Your task to perform on an android device: turn off location Image 0: 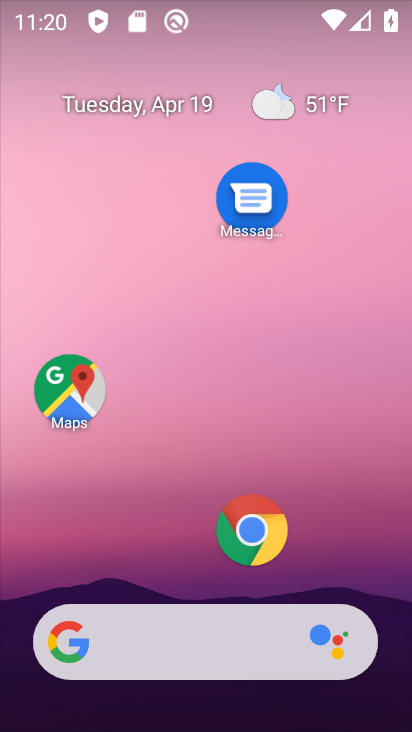
Step 0: drag from (143, 474) to (224, 7)
Your task to perform on an android device: turn off location Image 1: 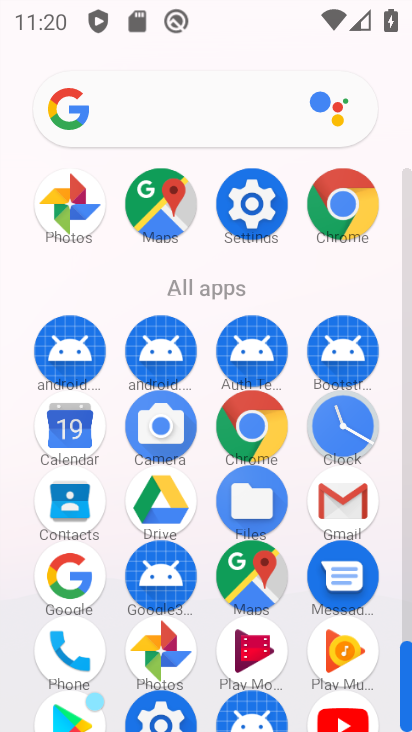
Step 1: drag from (149, 623) to (269, 306)
Your task to perform on an android device: turn off location Image 2: 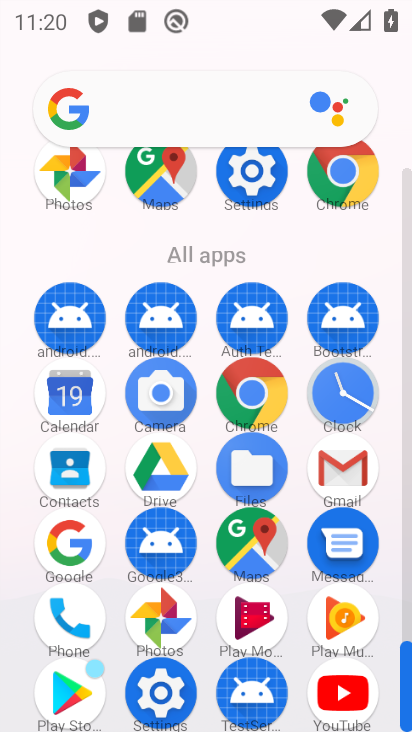
Step 2: click (160, 695)
Your task to perform on an android device: turn off location Image 3: 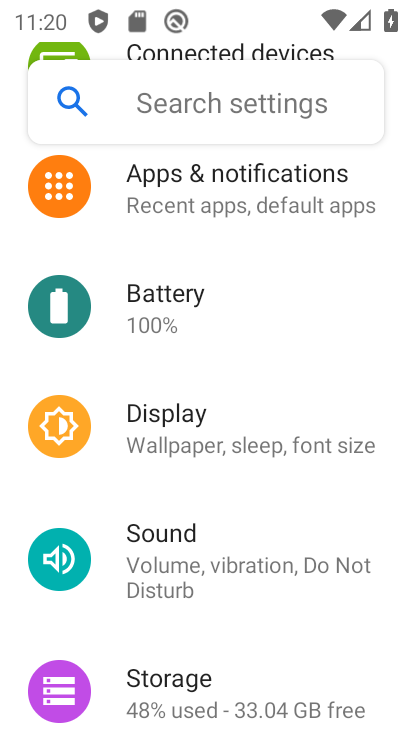
Step 3: drag from (125, 559) to (259, 205)
Your task to perform on an android device: turn off location Image 4: 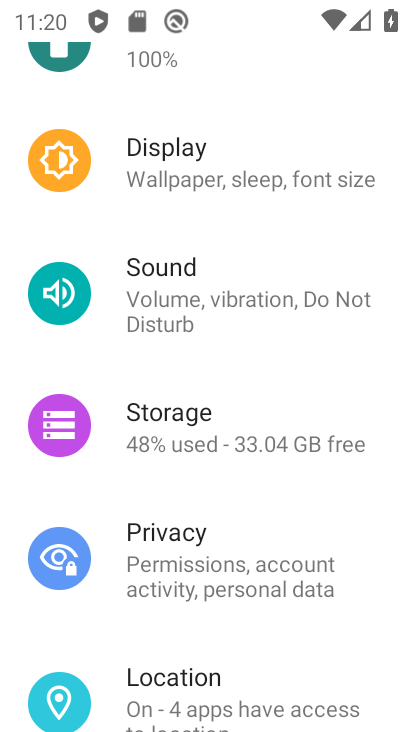
Step 4: drag from (213, 629) to (282, 342)
Your task to perform on an android device: turn off location Image 5: 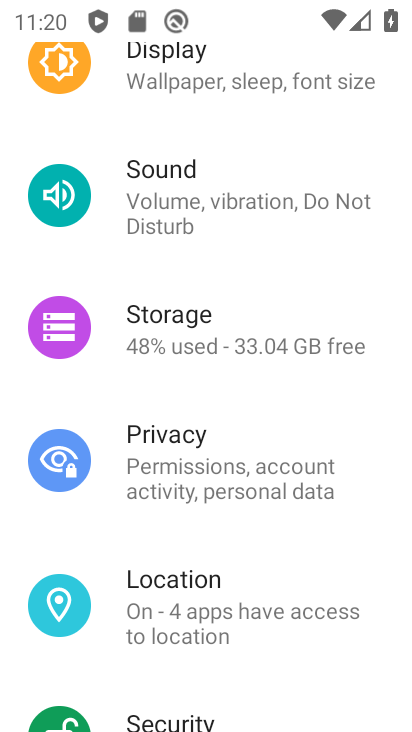
Step 5: click (178, 593)
Your task to perform on an android device: turn off location Image 6: 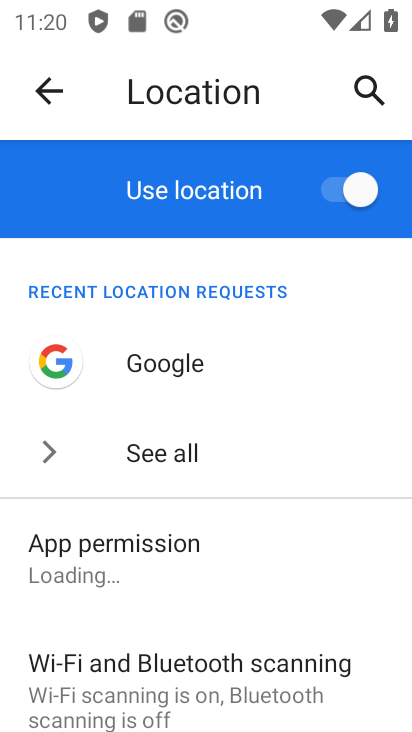
Step 6: click (332, 187)
Your task to perform on an android device: turn off location Image 7: 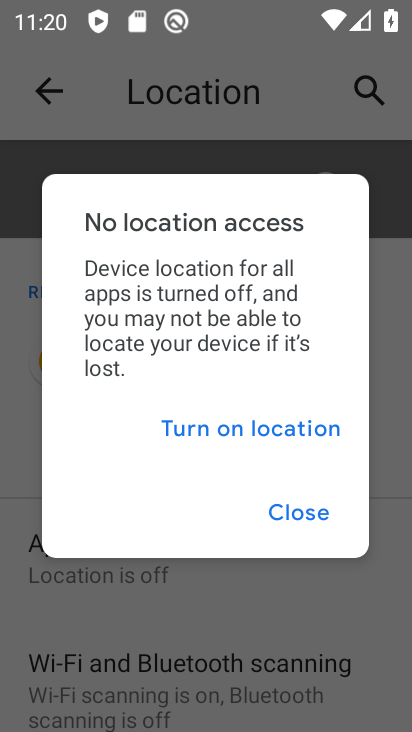
Step 7: click (316, 504)
Your task to perform on an android device: turn off location Image 8: 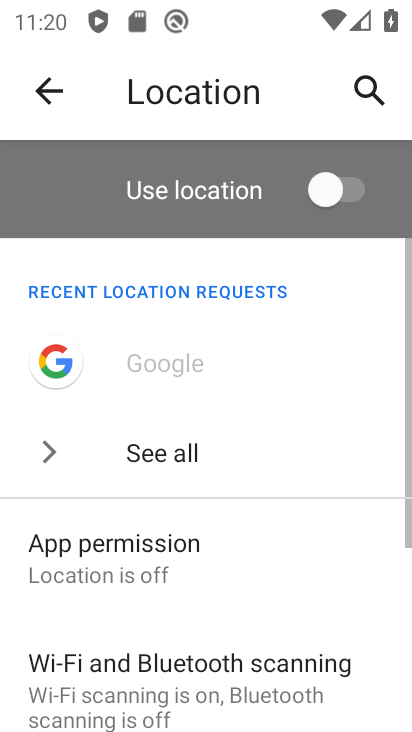
Step 8: task complete